Your task to perform on an android device: turn notification dots off Image 0: 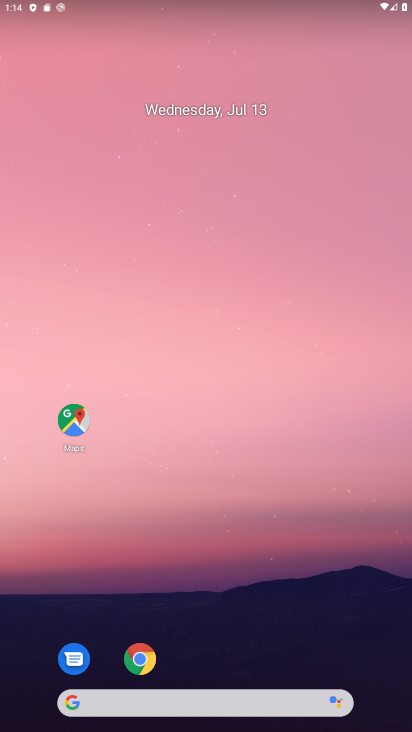
Step 0: drag from (383, 671) to (334, 88)
Your task to perform on an android device: turn notification dots off Image 1: 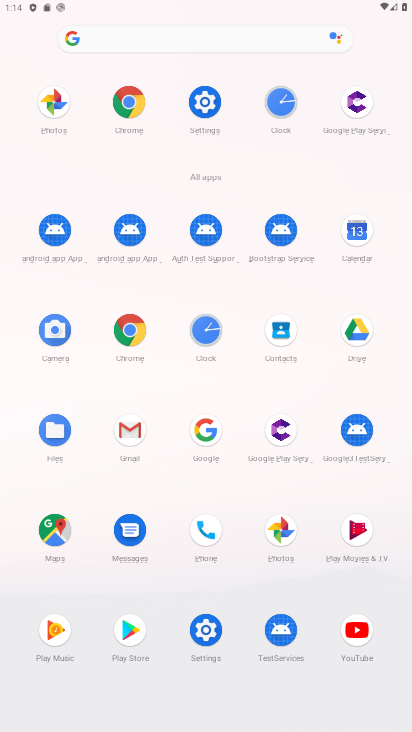
Step 1: click (208, 631)
Your task to perform on an android device: turn notification dots off Image 2: 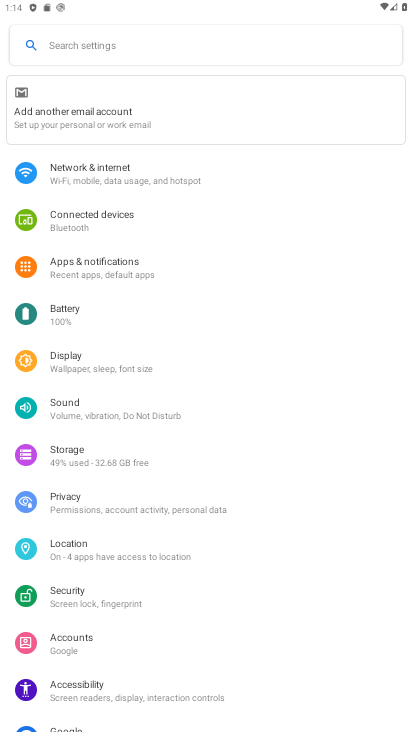
Step 2: click (93, 264)
Your task to perform on an android device: turn notification dots off Image 3: 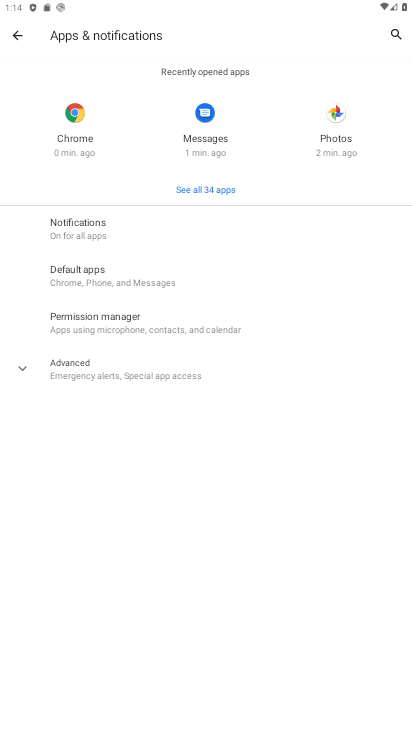
Step 3: click (82, 220)
Your task to perform on an android device: turn notification dots off Image 4: 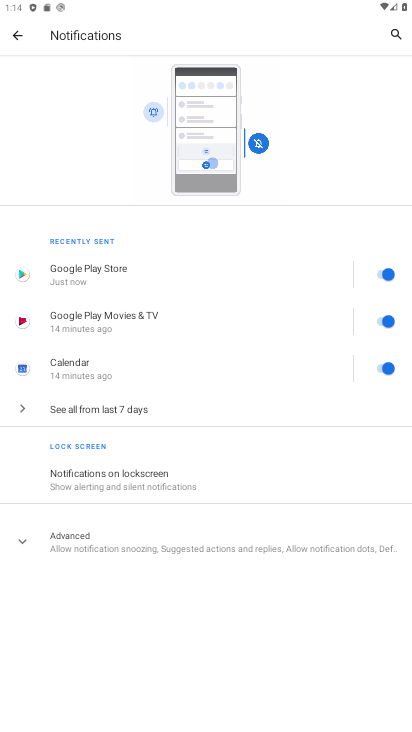
Step 4: click (25, 538)
Your task to perform on an android device: turn notification dots off Image 5: 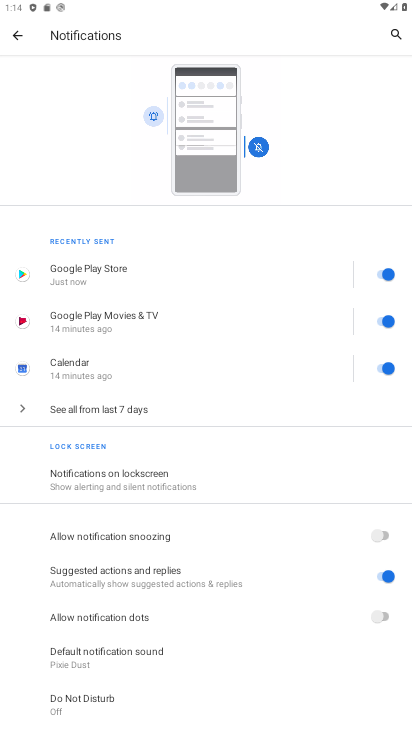
Step 5: task complete